Your task to perform on an android device: turn on translation in the chrome app Image 0: 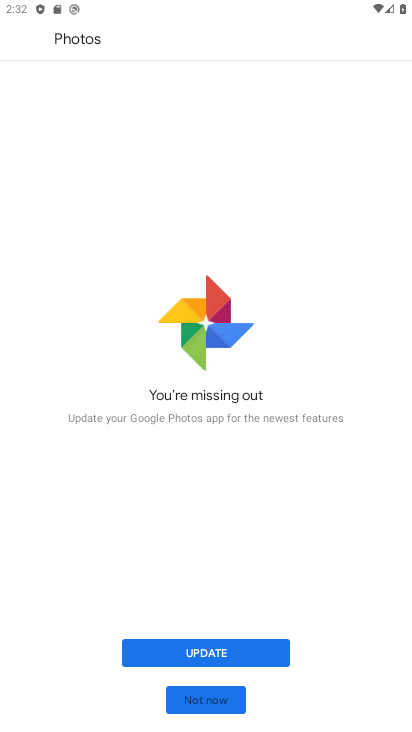
Step 0: press home button
Your task to perform on an android device: turn on translation in the chrome app Image 1: 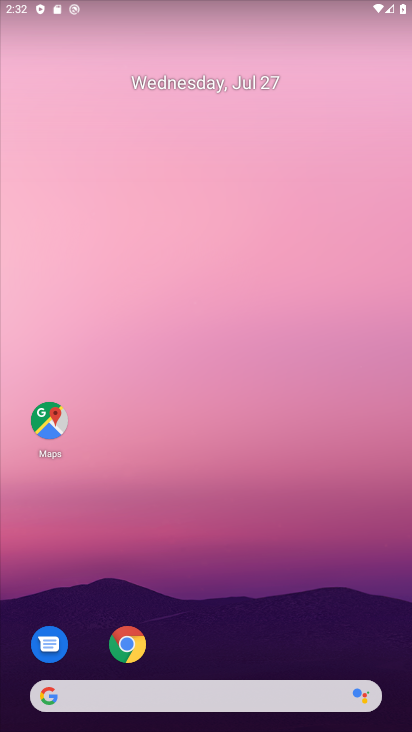
Step 1: click (126, 643)
Your task to perform on an android device: turn on translation in the chrome app Image 2: 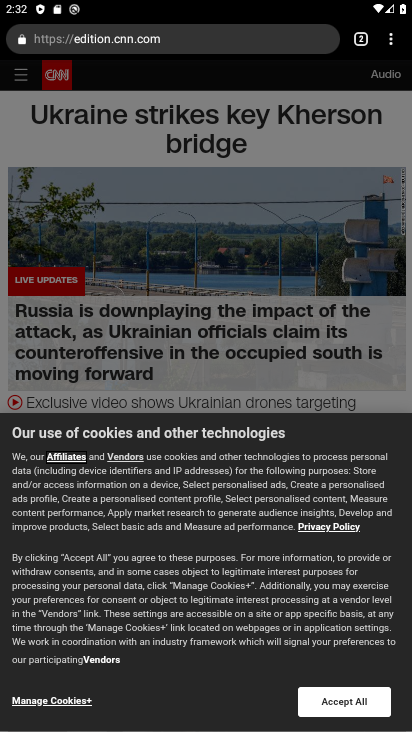
Step 2: click (386, 38)
Your task to perform on an android device: turn on translation in the chrome app Image 3: 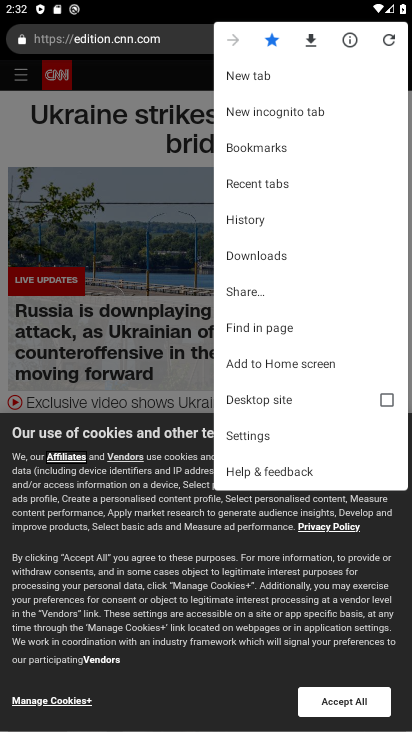
Step 3: click (257, 427)
Your task to perform on an android device: turn on translation in the chrome app Image 4: 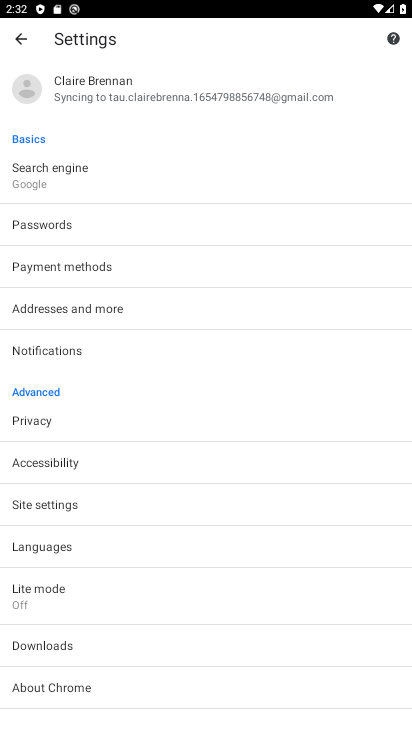
Step 4: click (67, 546)
Your task to perform on an android device: turn on translation in the chrome app Image 5: 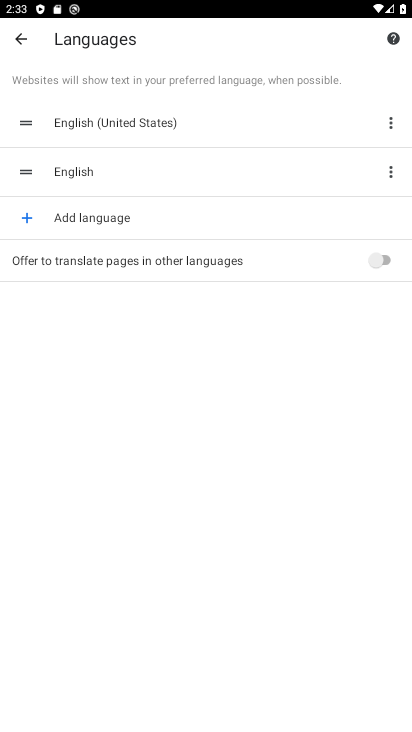
Step 5: click (393, 256)
Your task to perform on an android device: turn on translation in the chrome app Image 6: 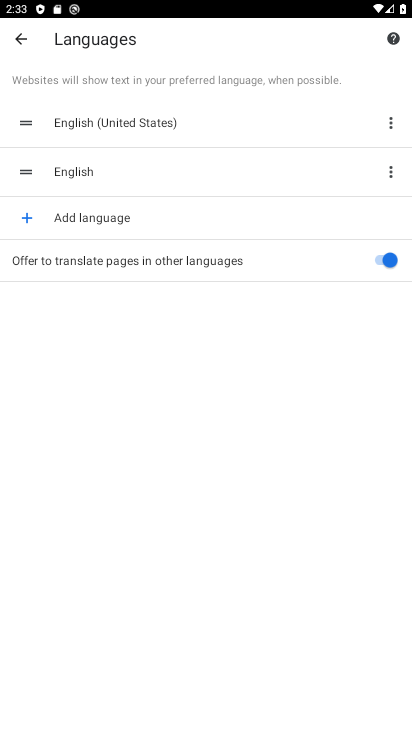
Step 6: task complete